Your task to perform on an android device: turn on notifications settings in the gmail app Image 0: 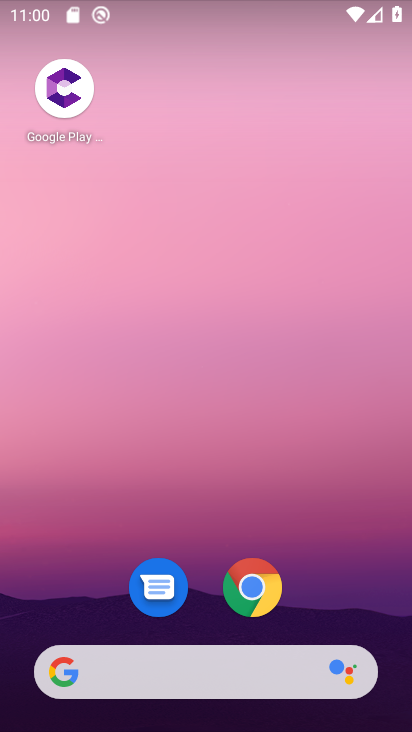
Step 0: drag from (211, 621) to (239, 141)
Your task to perform on an android device: turn on notifications settings in the gmail app Image 1: 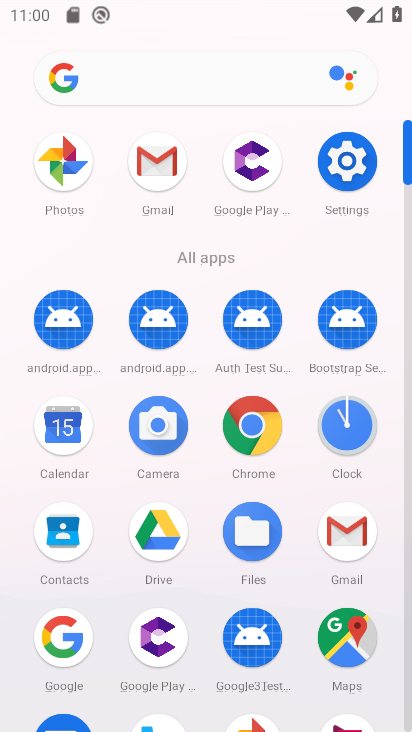
Step 1: click (145, 175)
Your task to perform on an android device: turn on notifications settings in the gmail app Image 2: 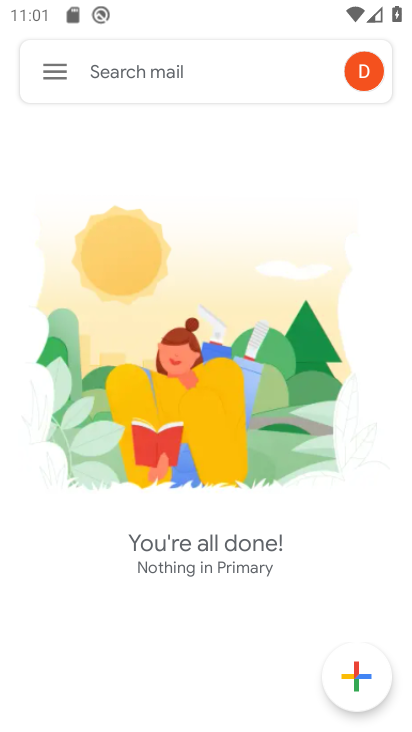
Step 2: click (61, 83)
Your task to perform on an android device: turn on notifications settings in the gmail app Image 3: 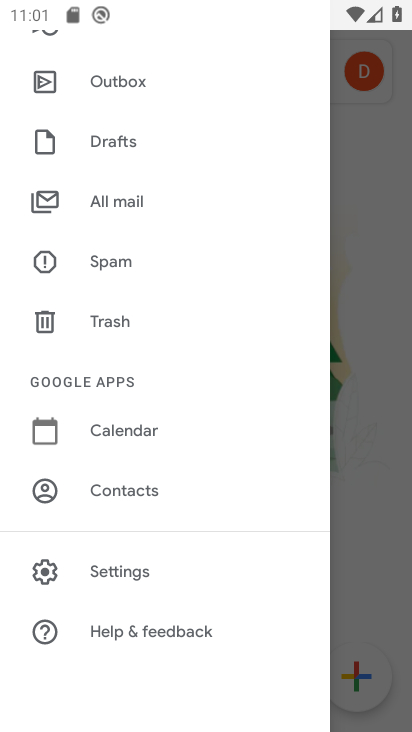
Step 3: click (116, 558)
Your task to perform on an android device: turn on notifications settings in the gmail app Image 4: 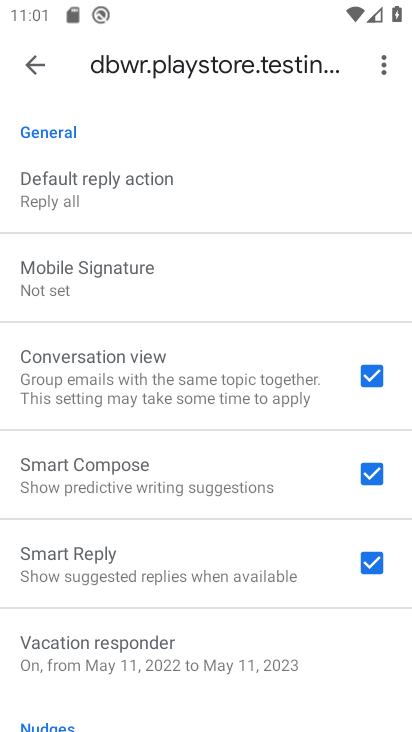
Step 4: drag from (173, 651) to (205, 308)
Your task to perform on an android device: turn on notifications settings in the gmail app Image 5: 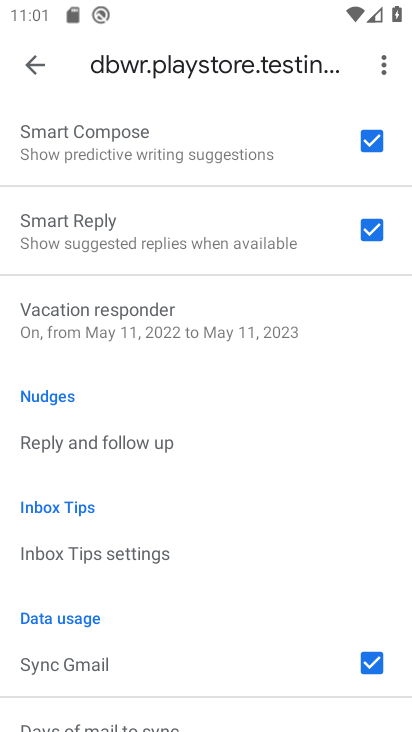
Step 5: drag from (118, 660) to (184, 616)
Your task to perform on an android device: turn on notifications settings in the gmail app Image 6: 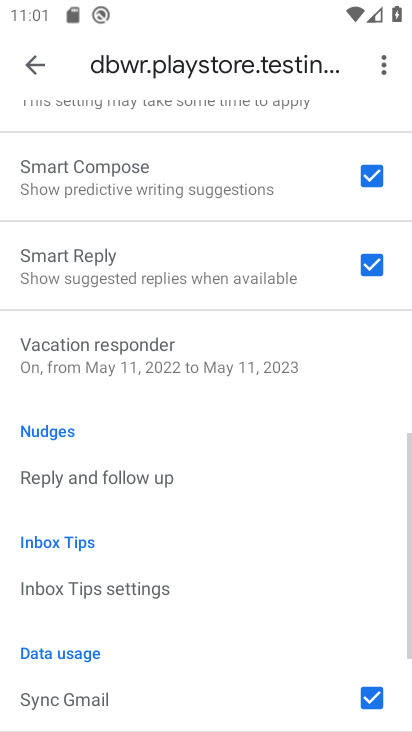
Step 6: drag from (134, 340) to (139, 597)
Your task to perform on an android device: turn on notifications settings in the gmail app Image 7: 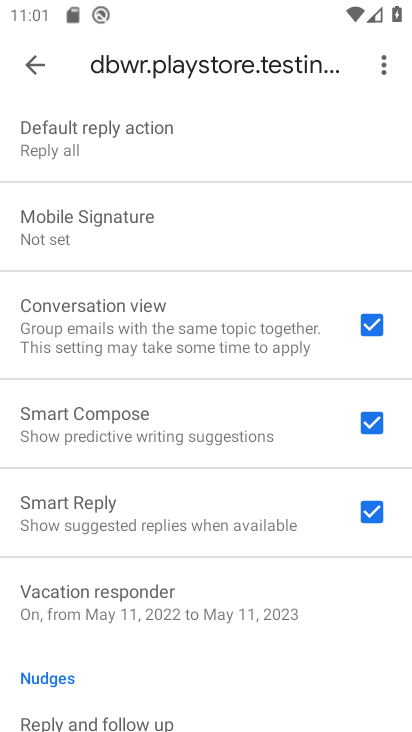
Step 7: drag from (180, 230) to (196, 590)
Your task to perform on an android device: turn on notifications settings in the gmail app Image 8: 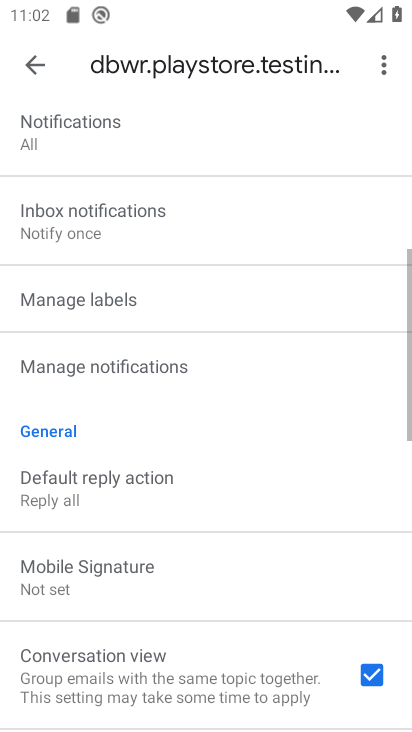
Step 8: drag from (169, 239) to (173, 538)
Your task to perform on an android device: turn on notifications settings in the gmail app Image 9: 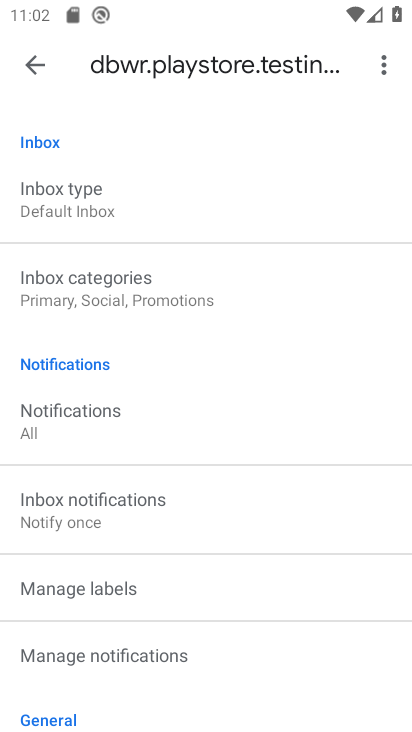
Step 9: click (106, 648)
Your task to perform on an android device: turn on notifications settings in the gmail app Image 10: 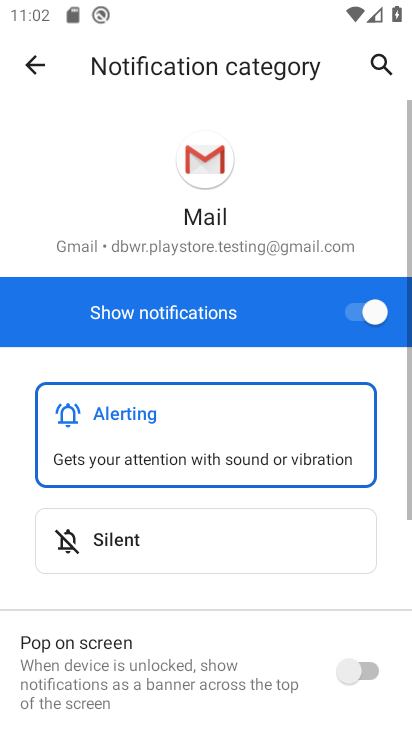
Step 10: task complete